Your task to perform on an android device: Open the calendar app, open the side menu, and click the "Day" option Image 0: 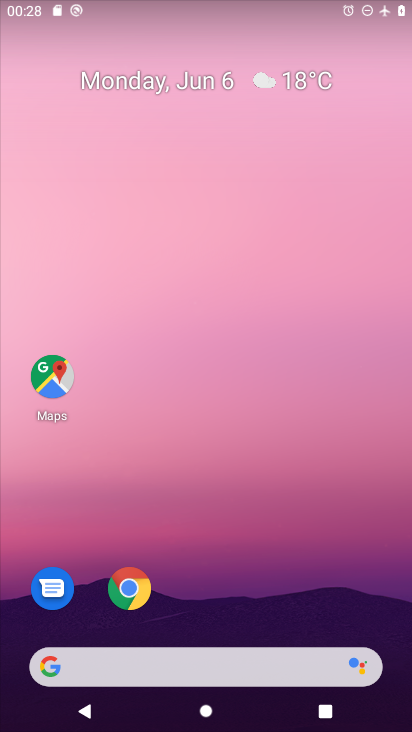
Step 0: drag from (333, 592) to (360, 182)
Your task to perform on an android device: Open the calendar app, open the side menu, and click the "Day" option Image 1: 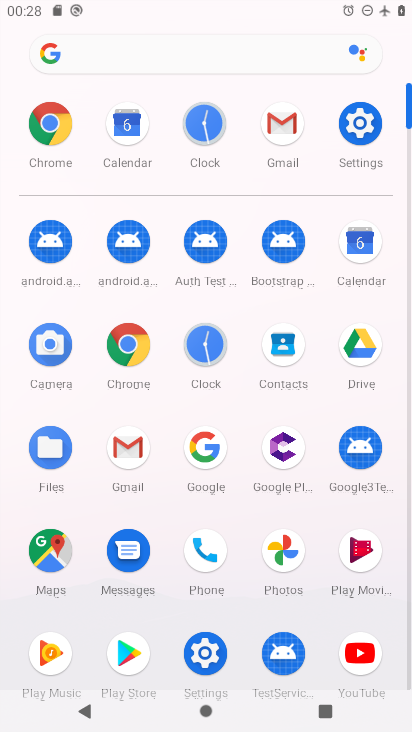
Step 1: click (369, 239)
Your task to perform on an android device: Open the calendar app, open the side menu, and click the "Day" option Image 2: 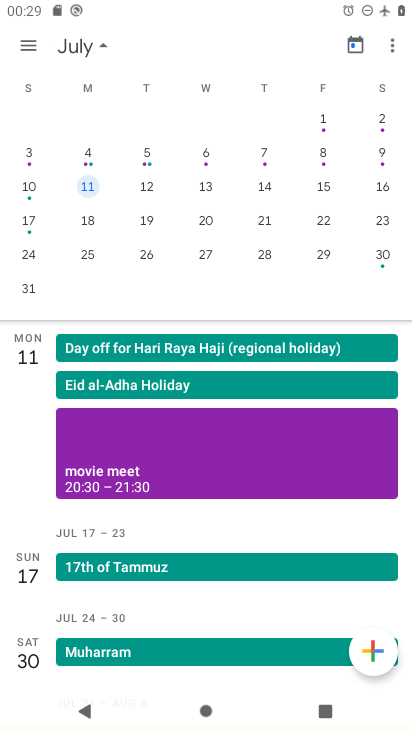
Step 2: click (38, 47)
Your task to perform on an android device: Open the calendar app, open the side menu, and click the "Day" option Image 3: 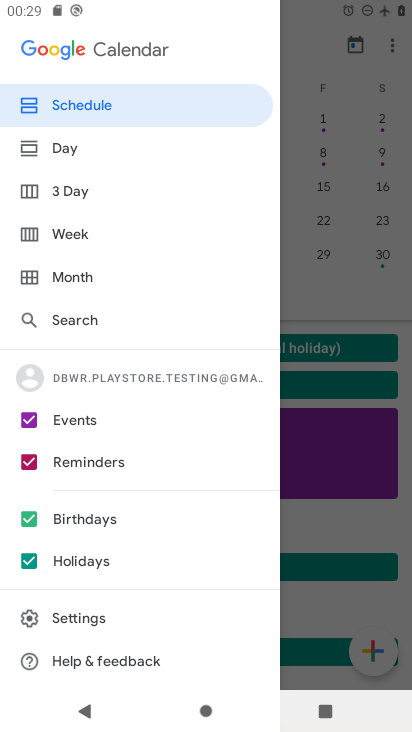
Step 3: drag from (228, 489) to (237, 411)
Your task to perform on an android device: Open the calendar app, open the side menu, and click the "Day" option Image 4: 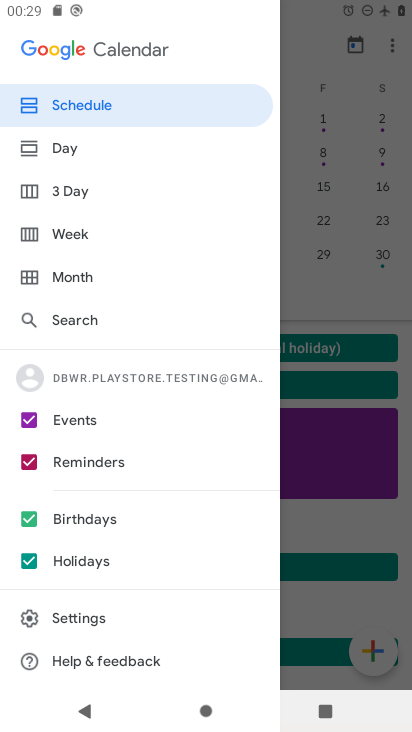
Step 4: drag from (243, 534) to (247, 474)
Your task to perform on an android device: Open the calendar app, open the side menu, and click the "Day" option Image 5: 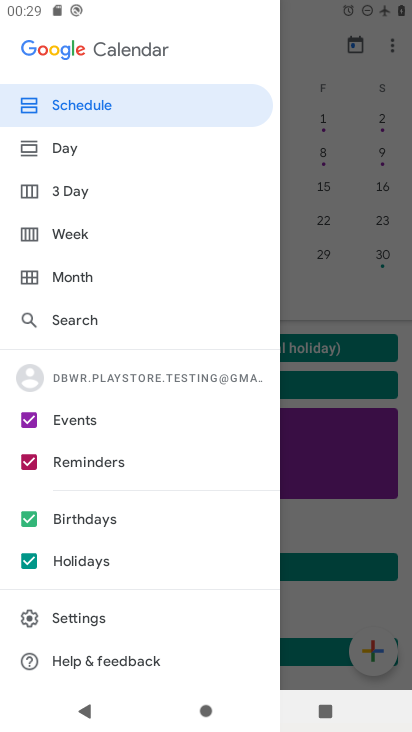
Step 5: drag from (229, 209) to (231, 290)
Your task to perform on an android device: Open the calendar app, open the side menu, and click the "Day" option Image 6: 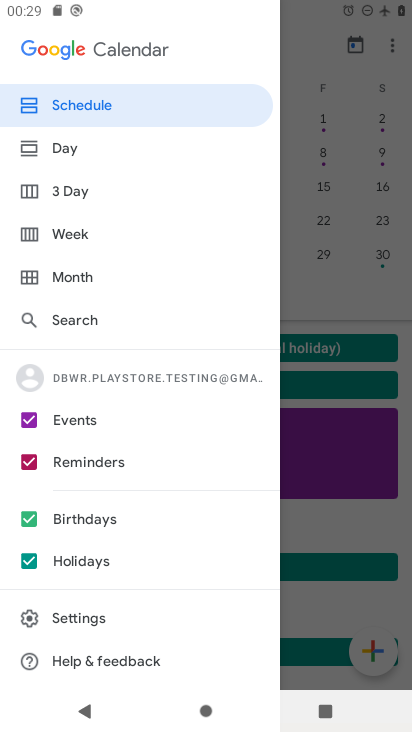
Step 6: click (79, 147)
Your task to perform on an android device: Open the calendar app, open the side menu, and click the "Day" option Image 7: 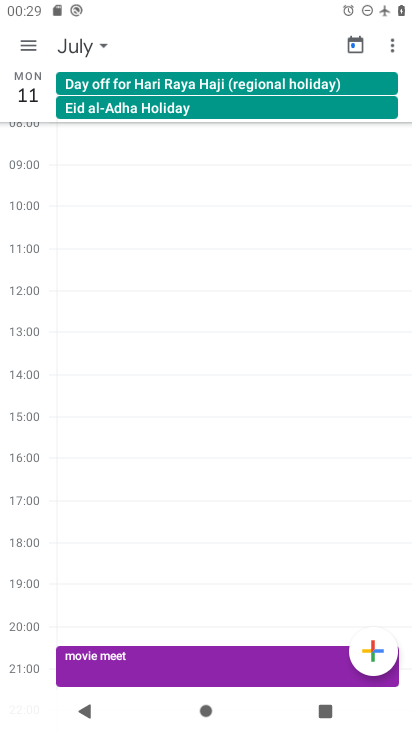
Step 7: task complete